Your task to perform on an android device: Open the calendar and show me this week's events? Image 0: 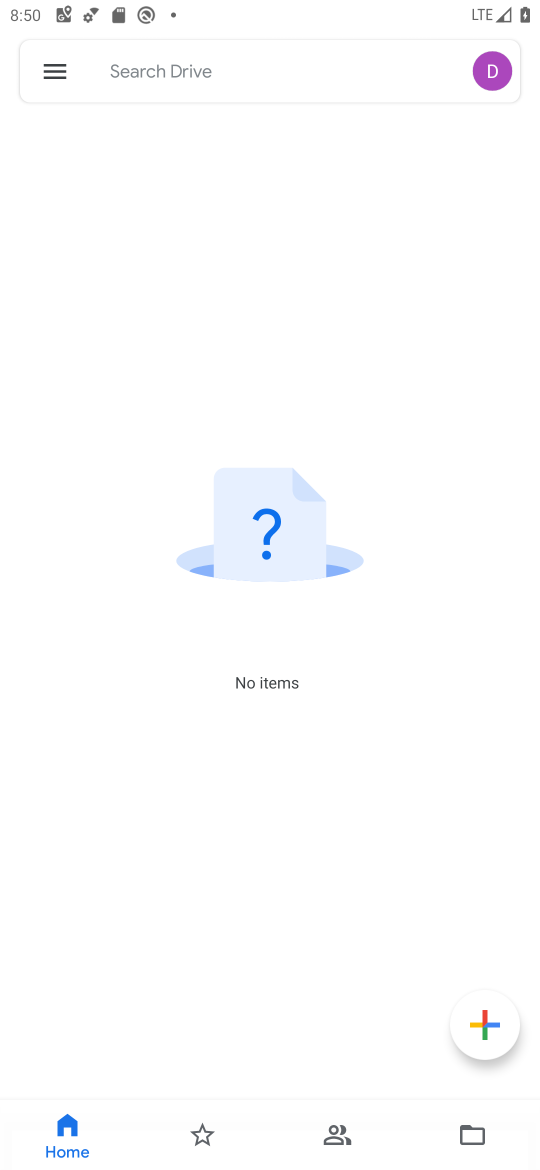
Step 0: press home button
Your task to perform on an android device: Open the calendar and show me this week's events? Image 1: 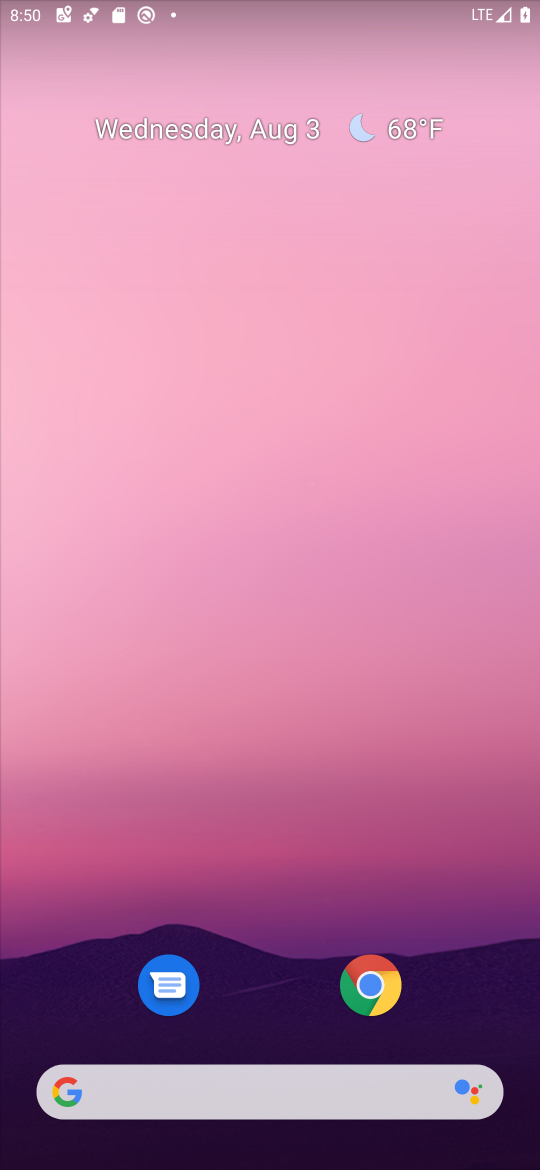
Step 1: drag from (245, 962) to (245, 335)
Your task to perform on an android device: Open the calendar and show me this week's events? Image 2: 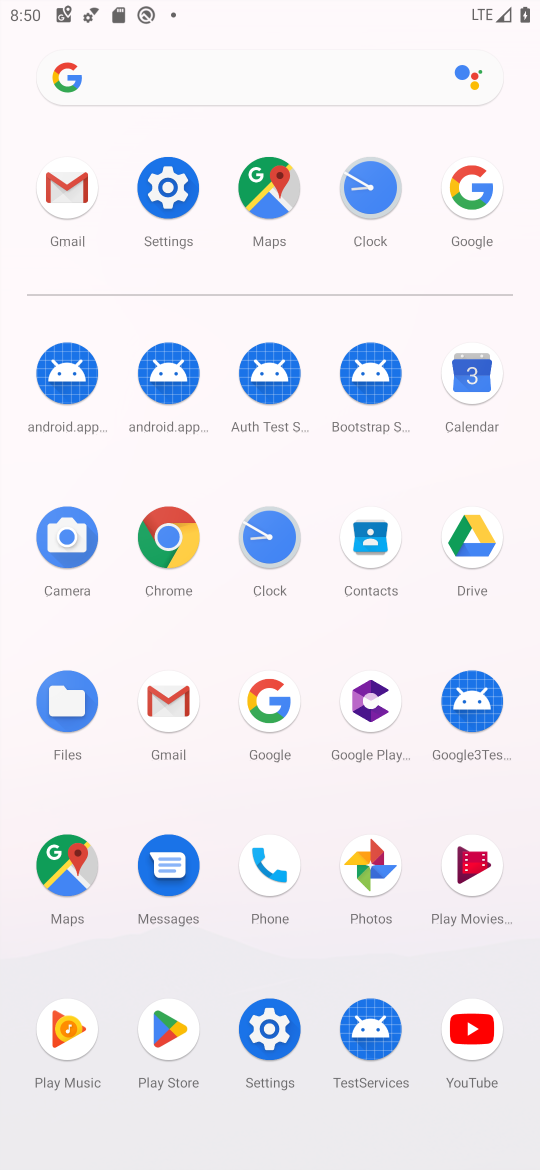
Step 2: click (471, 394)
Your task to perform on an android device: Open the calendar and show me this week's events? Image 3: 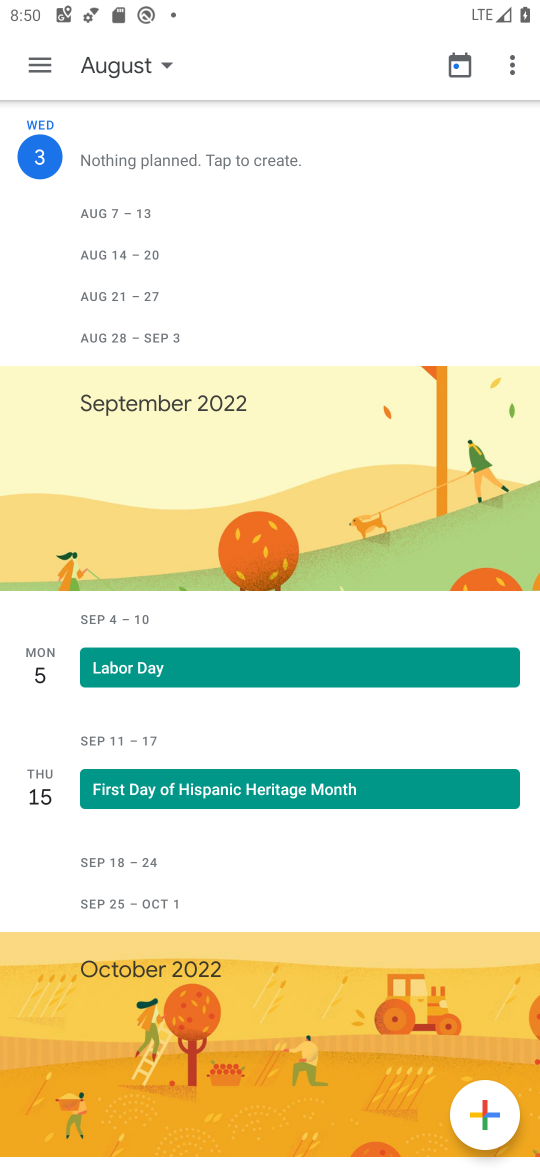
Step 3: click (146, 76)
Your task to perform on an android device: Open the calendar and show me this week's events? Image 4: 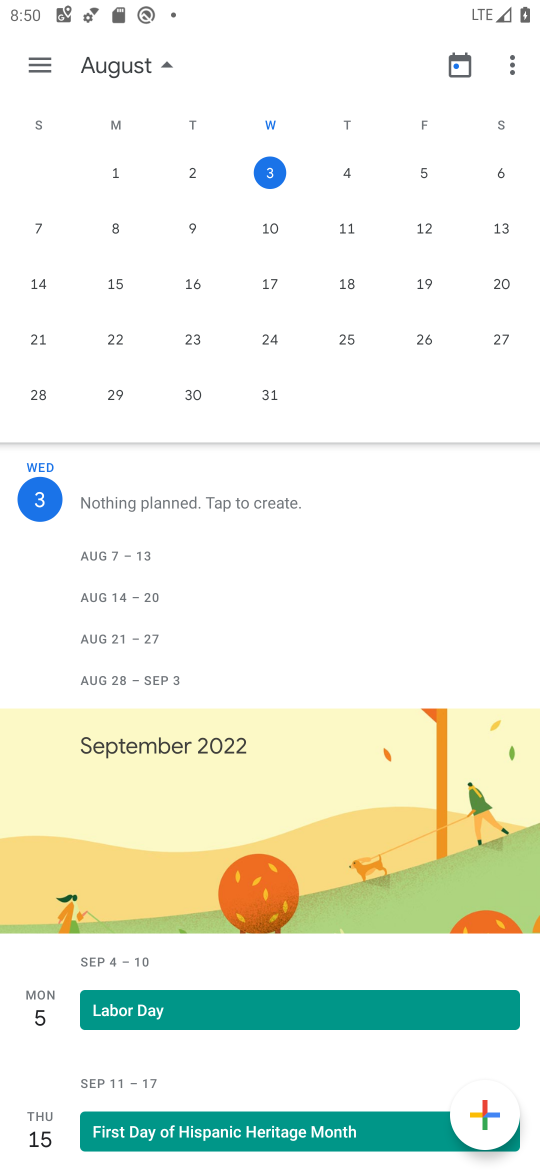
Step 4: click (489, 176)
Your task to perform on an android device: Open the calendar and show me this week's events? Image 5: 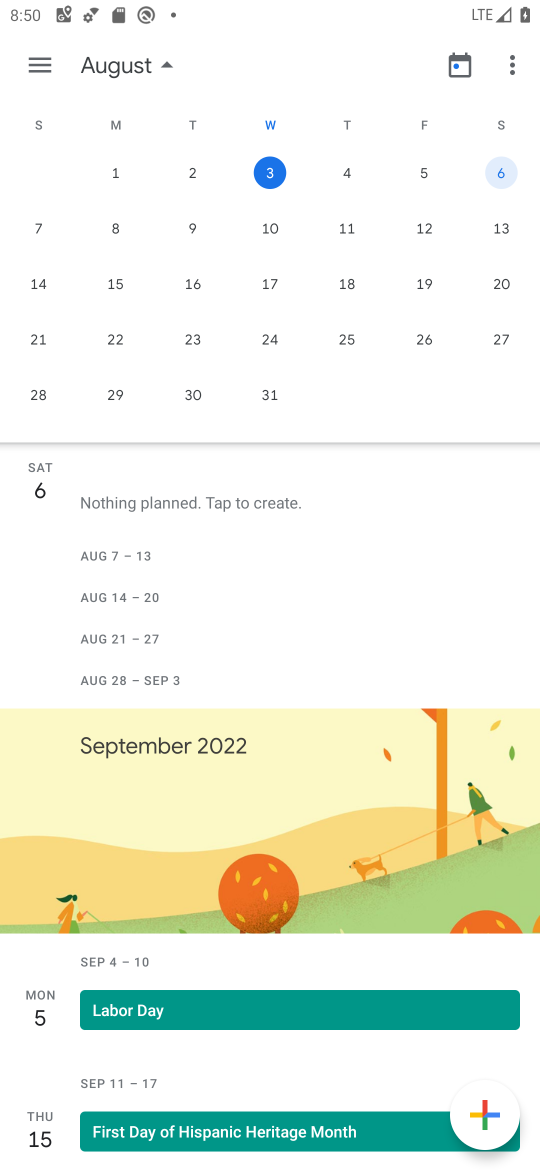
Step 5: click (518, 170)
Your task to perform on an android device: Open the calendar and show me this week's events? Image 6: 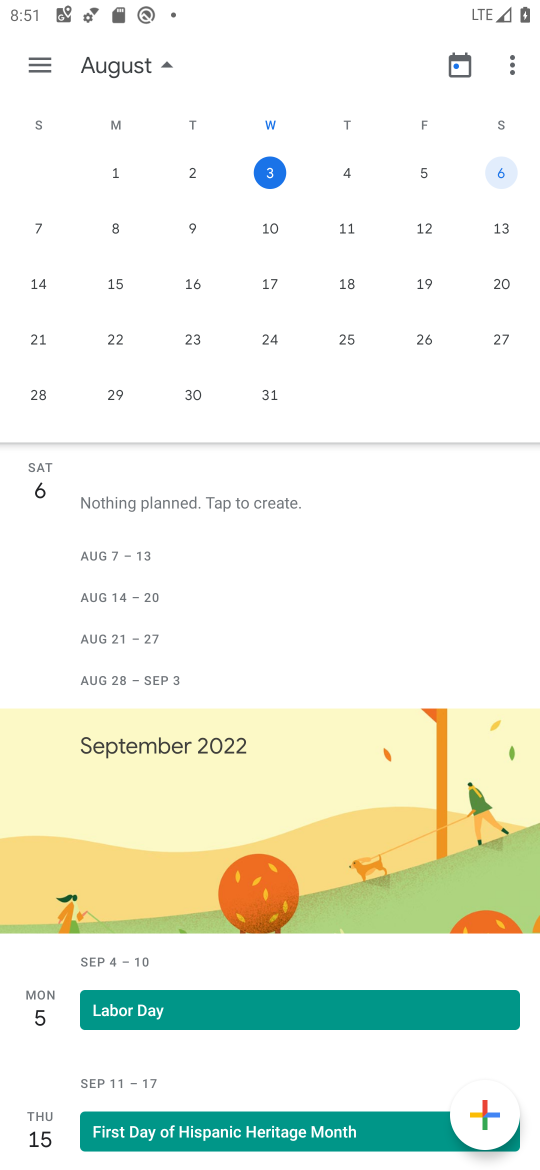
Step 6: task complete